Your task to perform on an android device: turn on translation in the chrome app Image 0: 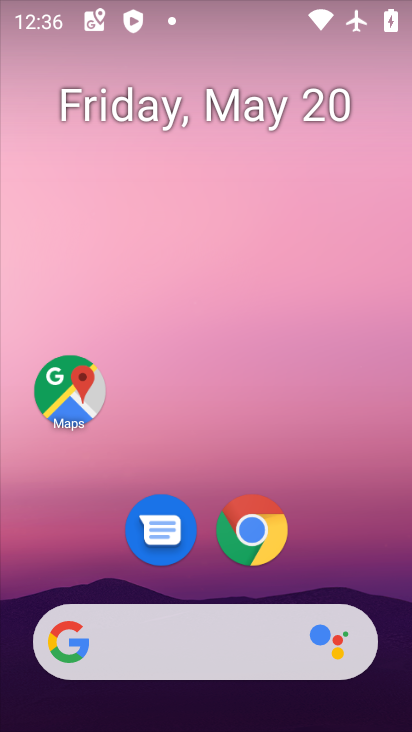
Step 0: click (279, 515)
Your task to perform on an android device: turn on translation in the chrome app Image 1: 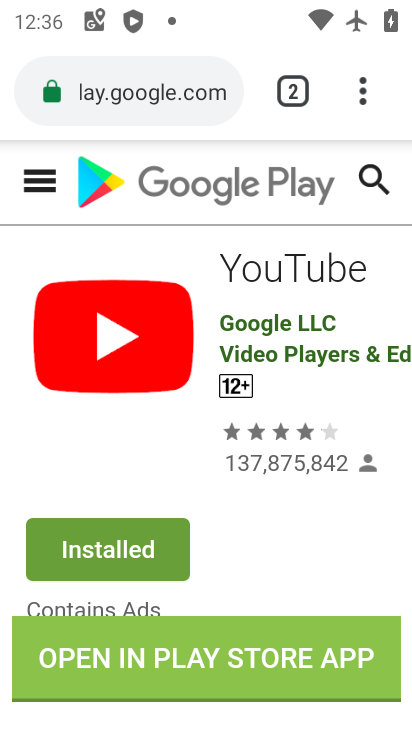
Step 1: press home button
Your task to perform on an android device: turn on translation in the chrome app Image 2: 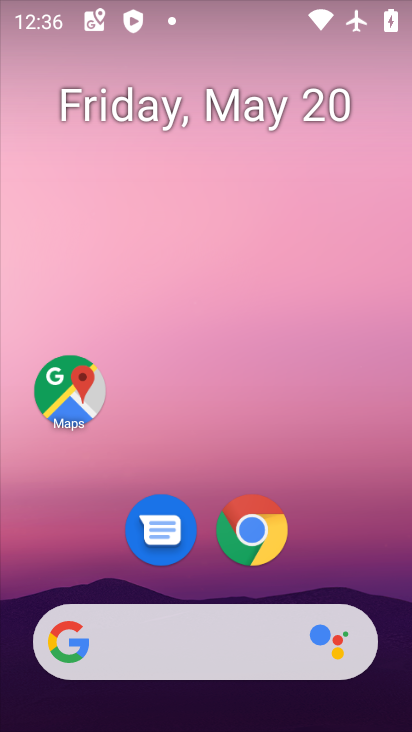
Step 2: click (264, 538)
Your task to perform on an android device: turn on translation in the chrome app Image 3: 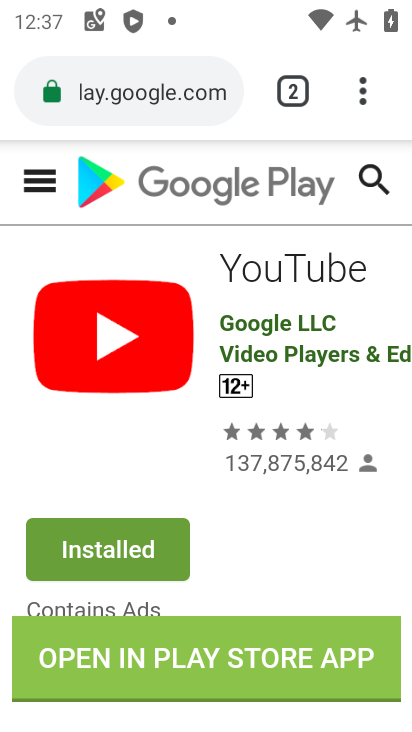
Step 3: click (368, 79)
Your task to perform on an android device: turn on translation in the chrome app Image 4: 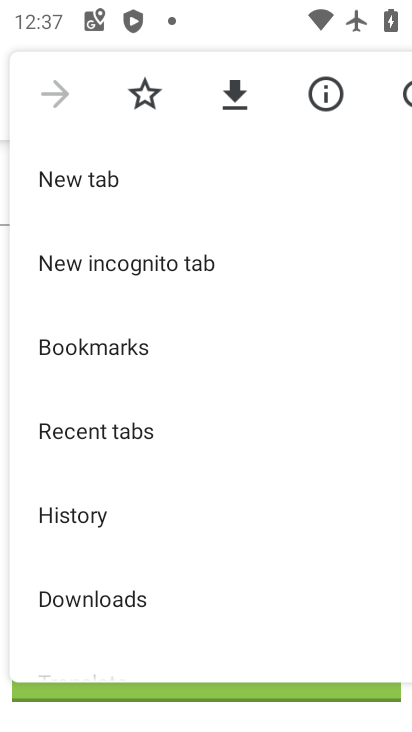
Step 4: drag from (201, 521) to (209, 285)
Your task to perform on an android device: turn on translation in the chrome app Image 5: 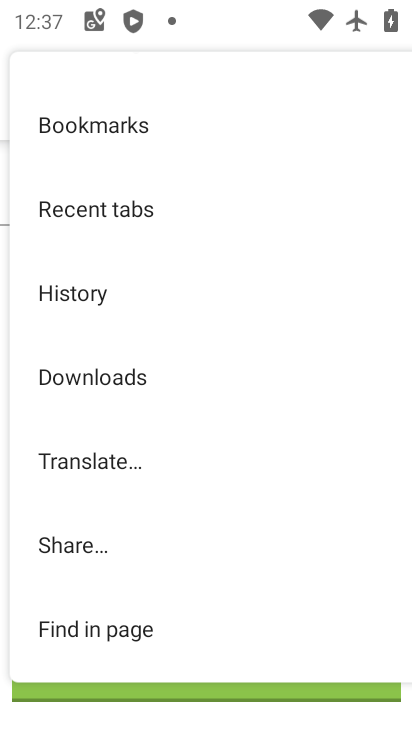
Step 5: drag from (214, 536) to (247, 239)
Your task to perform on an android device: turn on translation in the chrome app Image 6: 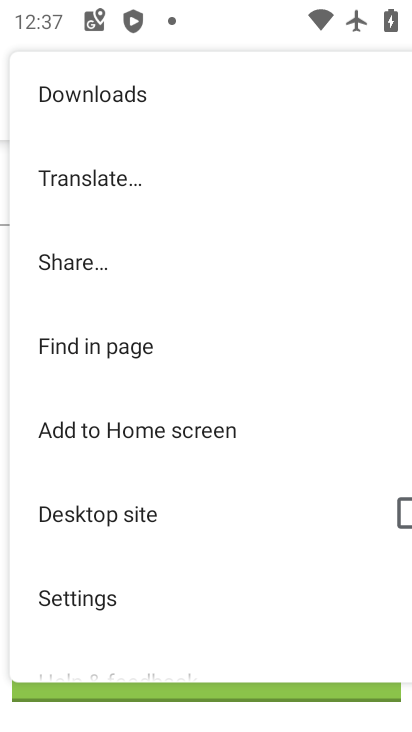
Step 6: click (153, 597)
Your task to perform on an android device: turn on translation in the chrome app Image 7: 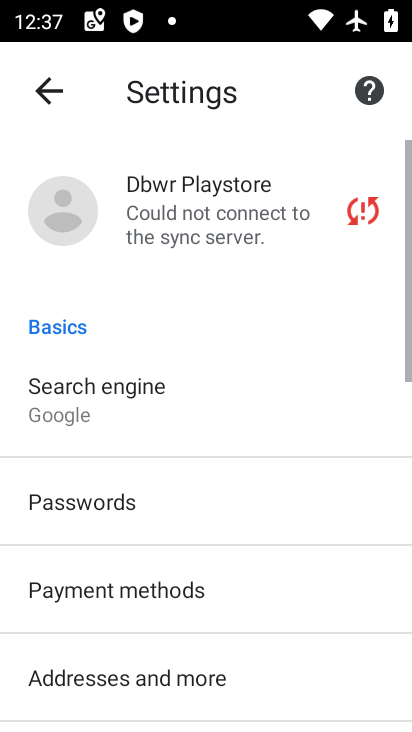
Step 7: drag from (160, 563) to (236, 120)
Your task to perform on an android device: turn on translation in the chrome app Image 8: 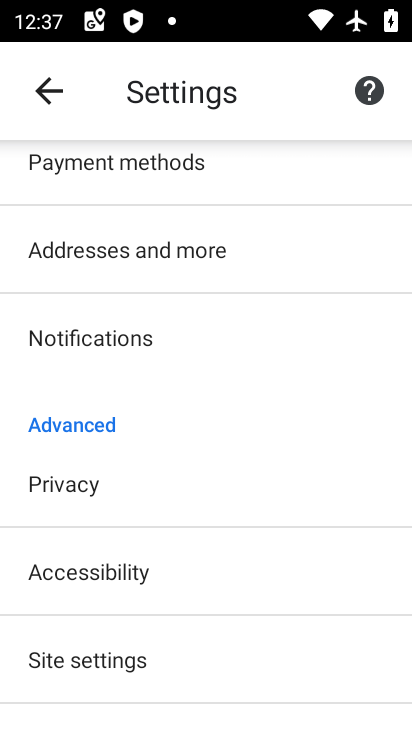
Step 8: drag from (168, 553) to (268, 290)
Your task to perform on an android device: turn on translation in the chrome app Image 9: 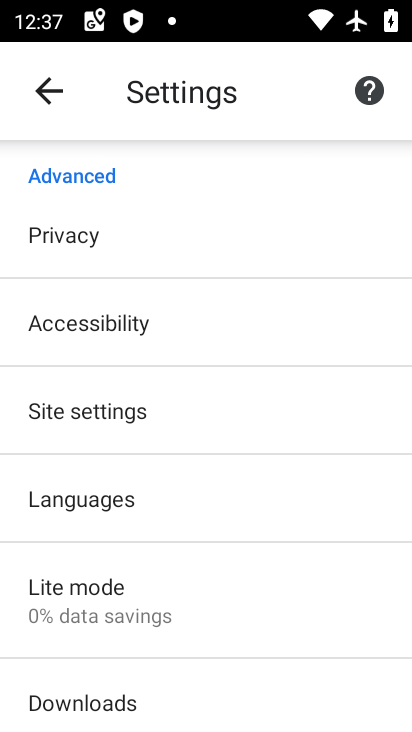
Step 9: click (140, 501)
Your task to perform on an android device: turn on translation in the chrome app Image 10: 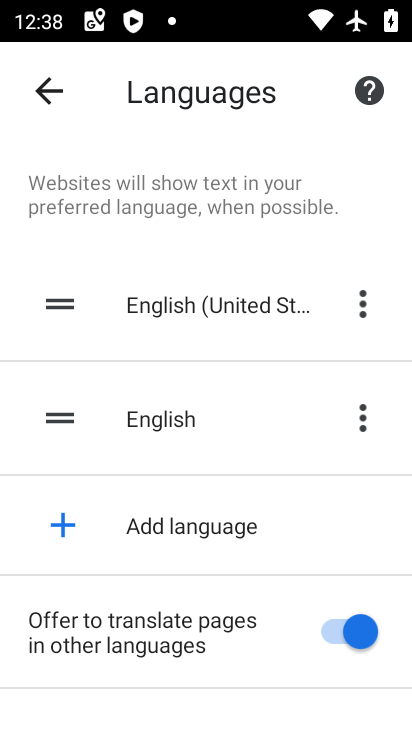
Step 10: task complete